Your task to perform on an android device: Open privacy settings Image 0: 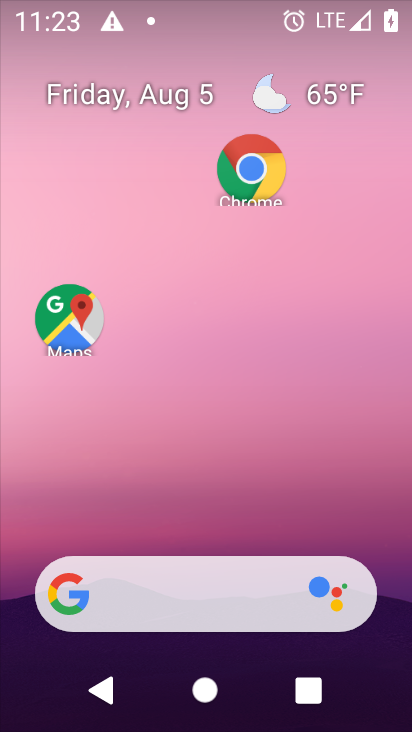
Step 0: drag from (206, 509) to (206, 234)
Your task to perform on an android device: Open privacy settings Image 1: 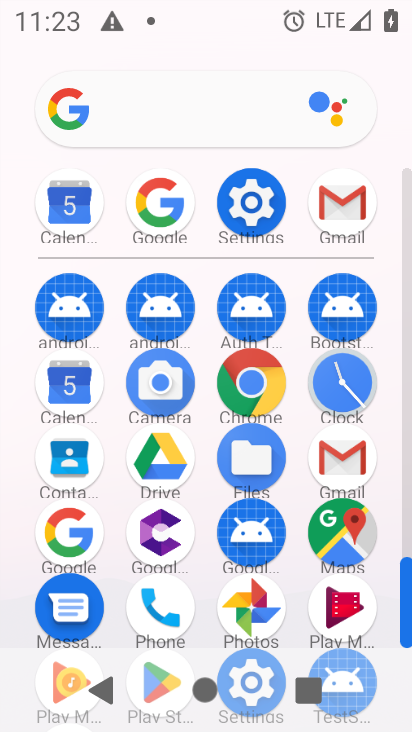
Step 1: click (246, 206)
Your task to perform on an android device: Open privacy settings Image 2: 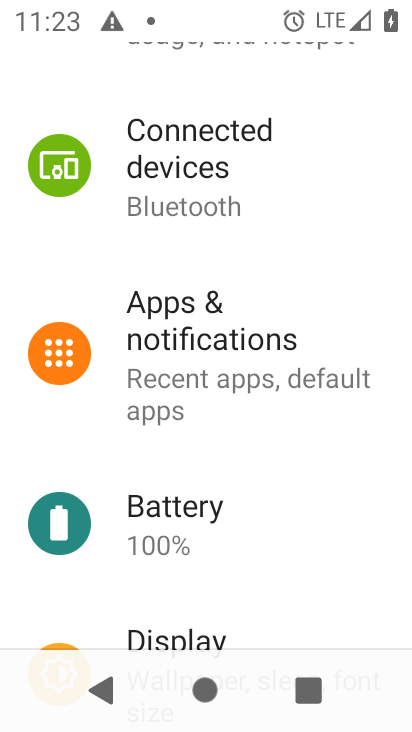
Step 2: drag from (268, 533) to (279, 174)
Your task to perform on an android device: Open privacy settings Image 3: 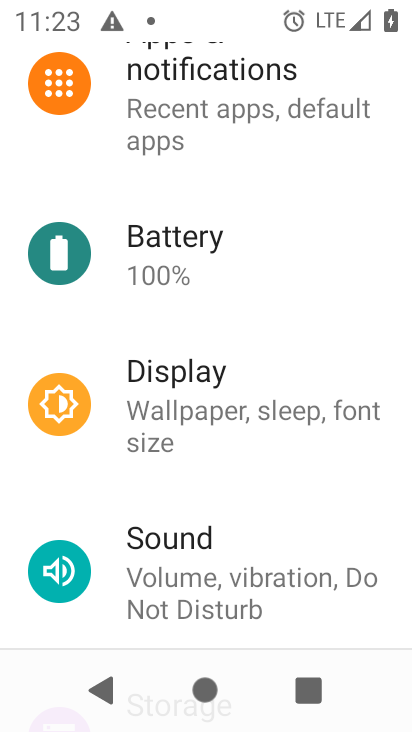
Step 3: drag from (268, 583) to (270, 209)
Your task to perform on an android device: Open privacy settings Image 4: 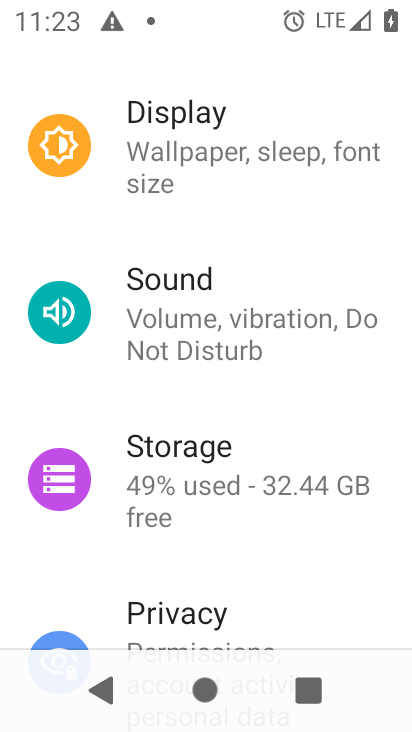
Step 4: click (229, 601)
Your task to perform on an android device: Open privacy settings Image 5: 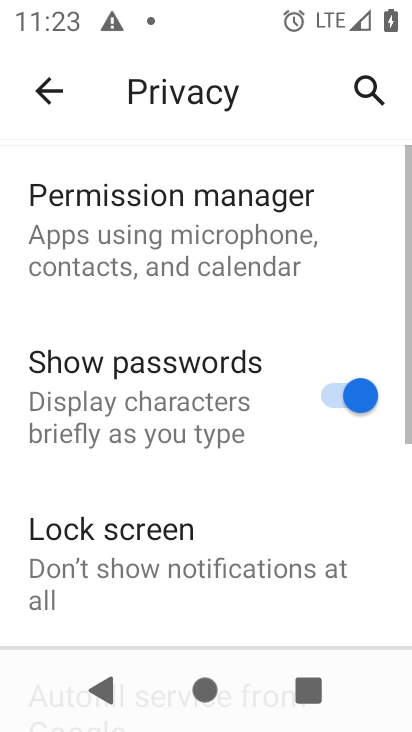
Step 5: task complete